Your task to perform on an android device: Open Youtube and go to "Your channel" Image 0: 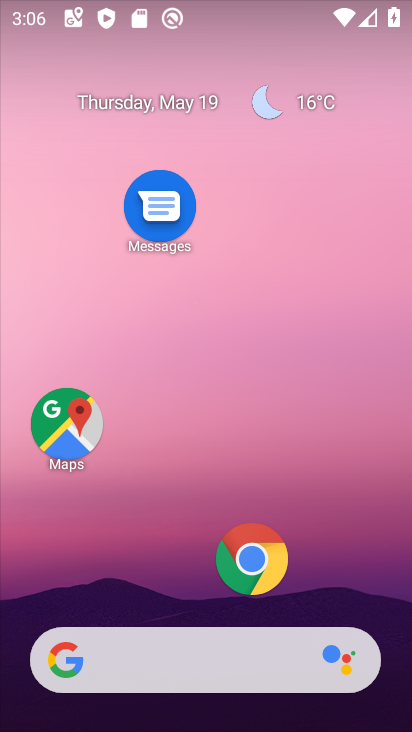
Step 0: drag from (176, 569) to (202, 264)
Your task to perform on an android device: Open Youtube and go to "Your channel" Image 1: 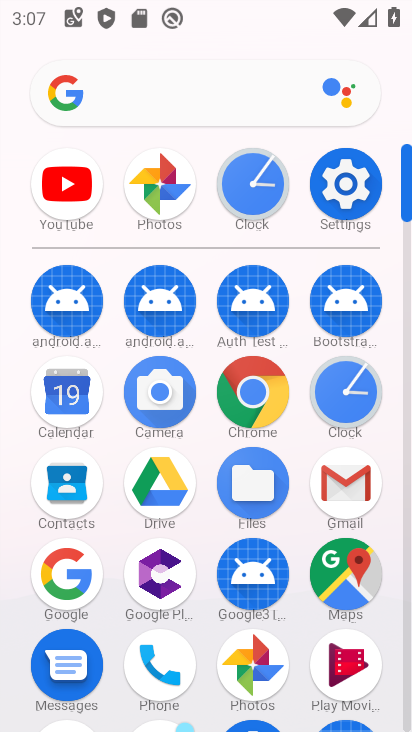
Step 1: click (79, 209)
Your task to perform on an android device: Open Youtube and go to "Your channel" Image 2: 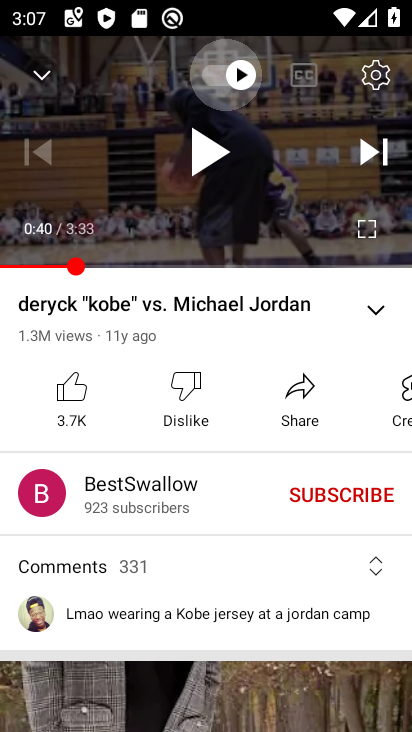
Step 2: drag from (264, 169) to (281, 635)
Your task to perform on an android device: Open Youtube and go to "Your channel" Image 3: 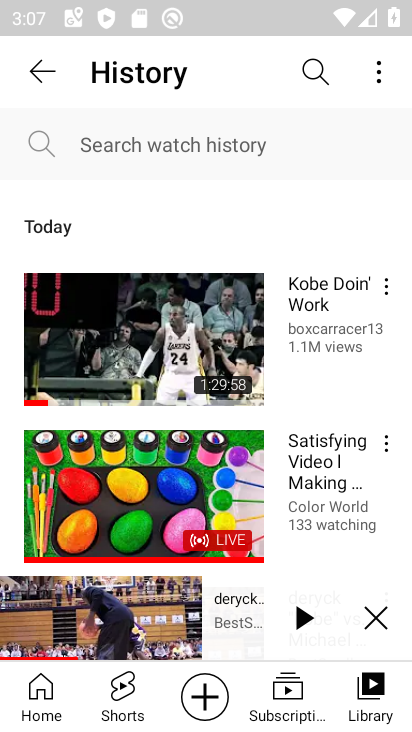
Step 3: click (39, 69)
Your task to perform on an android device: Open Youtube and go to "Your channel" Image 4: 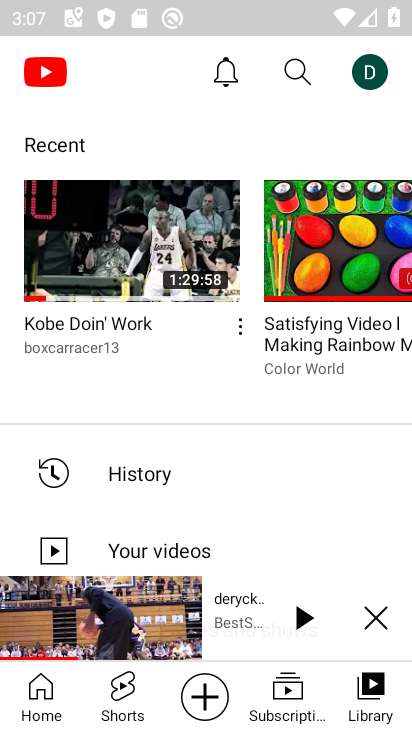
Step 4: click (362, 69)
Your task to perform on an android device: Open Youtube and go to "Your channel" Image 5: 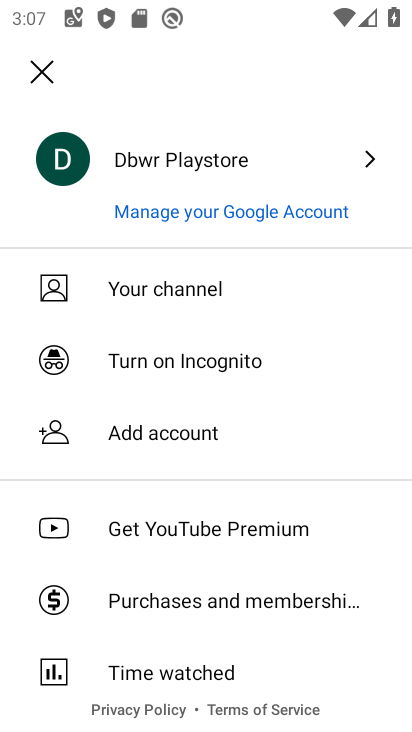
Step 5: click (140, 280)
Your task to perform on an android device: Open Youtube and go to "Your channel" Image 6: 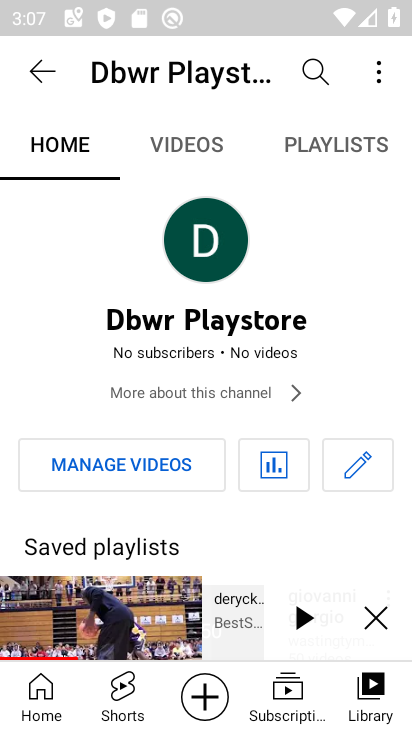
Step 6: click (372, 620)
Your task to perform on an android device: Open Youtube and go to "Your channel" Image 7: 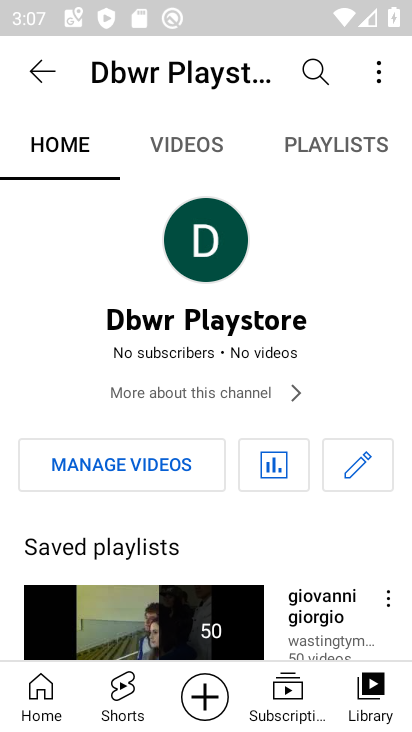
Step 7: task complete